Your task to perform on an android device: turn off wifi Image 0: 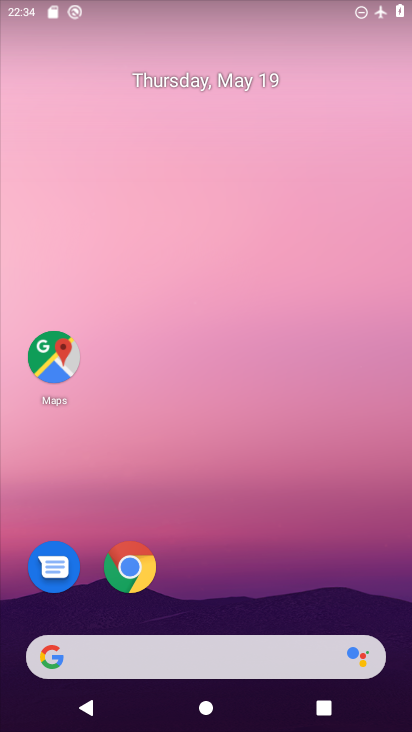
Step 0: drag from (139, 8) to (148, 580)
Your task to perform on an android device: turn off wifi Image 1: 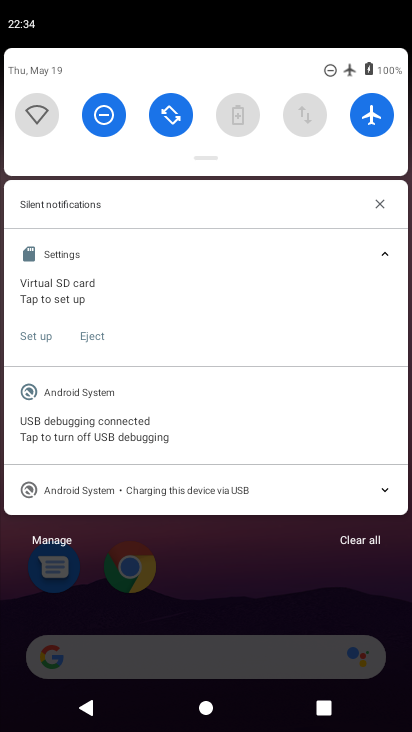
Step 1: task complete